Your task to perform on an android device: open wifi settings Image 0: 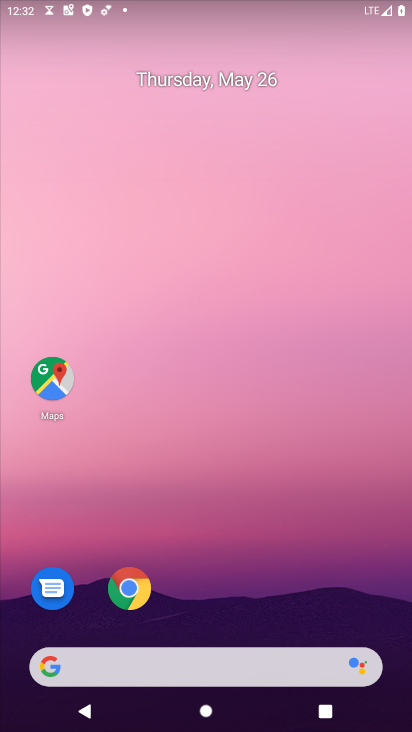
Step 0: drag from (206, 524) to (187, 50)
Your task to perform on an android device: open wifi settings Image 1: 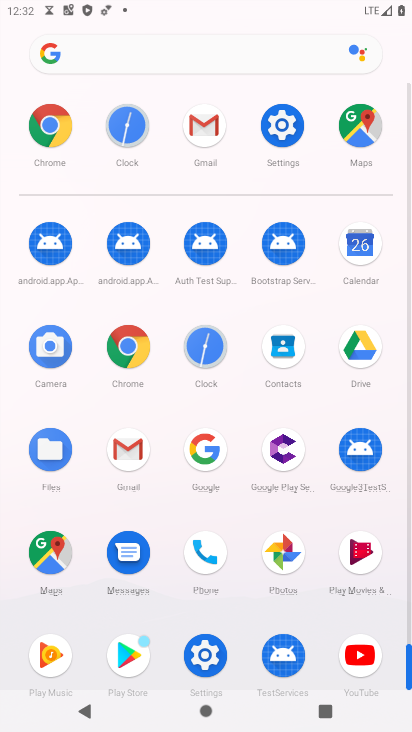
Step 1: drag from (24, 576) to (19, 273)
Your task to perform on an android device: open wifi settings Image 2: 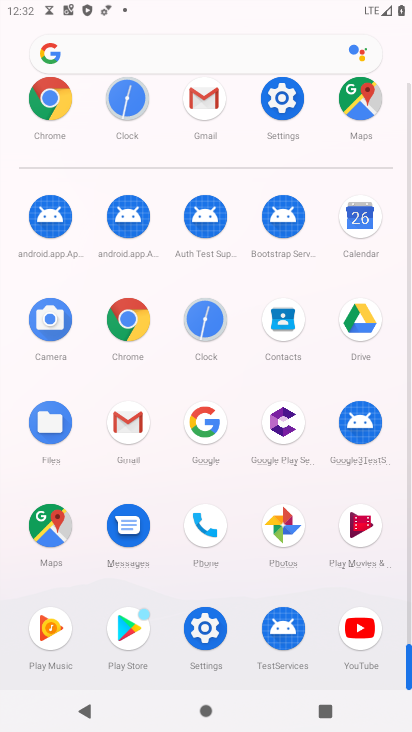
Step 2: click (203, 628)
Your task to perform on an android device: open wifi settings Image 3: 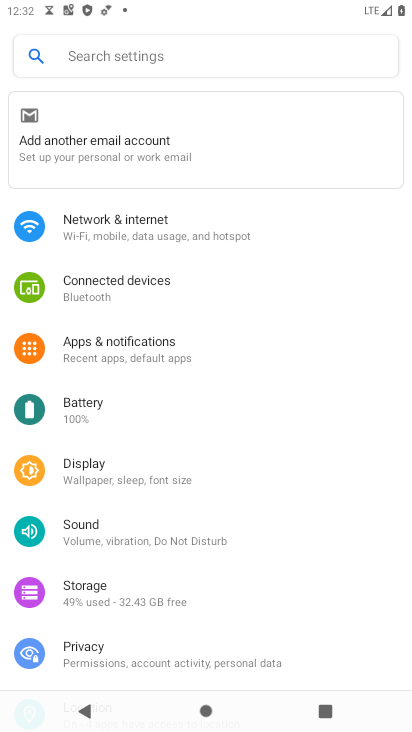
Step 3: click (158, 226)
Your task to perform on an android device: open wifi settings Image 4: 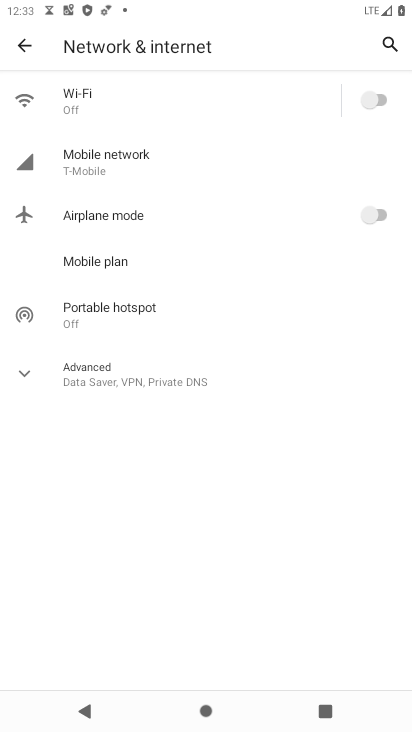
Step 4: click (27, 363)
Your task to perform on an android device: open wifi settings Image 5: 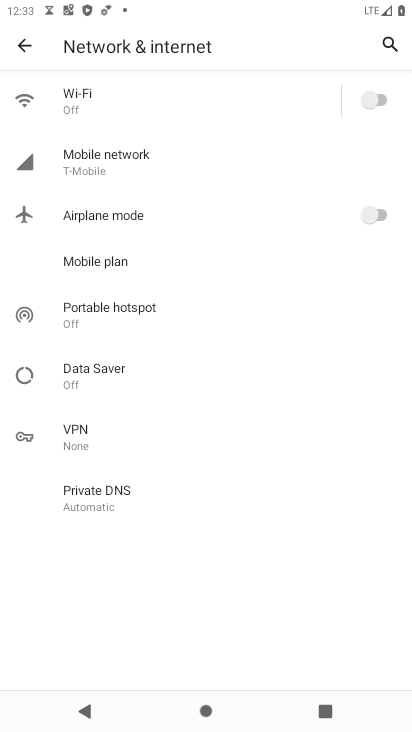
Step 5: task complete